Your task to perform on an android device: Is it going to rain tomorrow? Image 0: 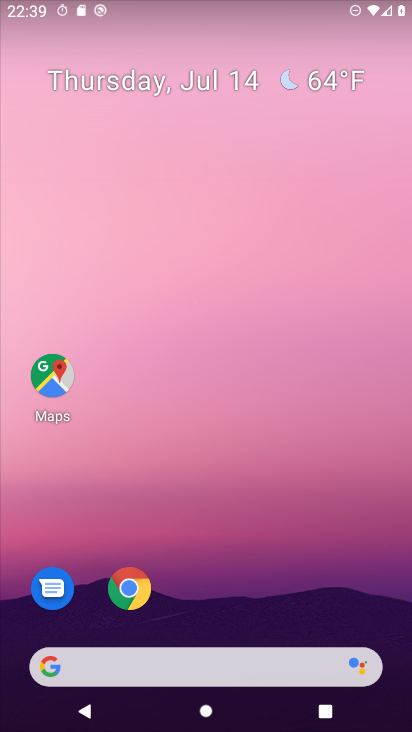
Step 0: drag from (325, 584) to (347, 428)
Your task to perform on an android device: Is it going to rain tomorrow? Image 1: 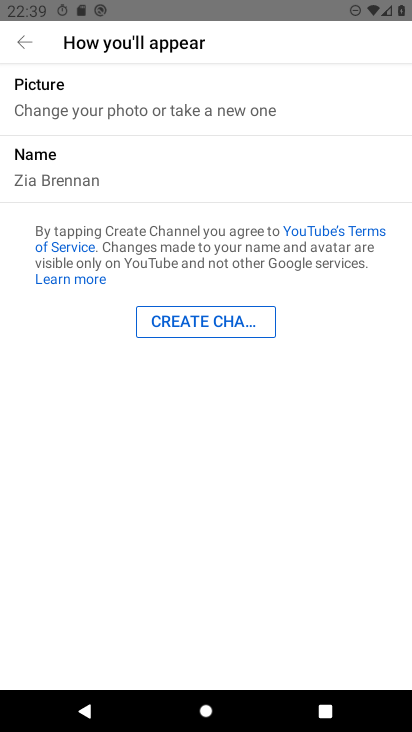
Step 1: press home button
Your task to perform on an android device: Is it going to rain tomorrow? Image 2: 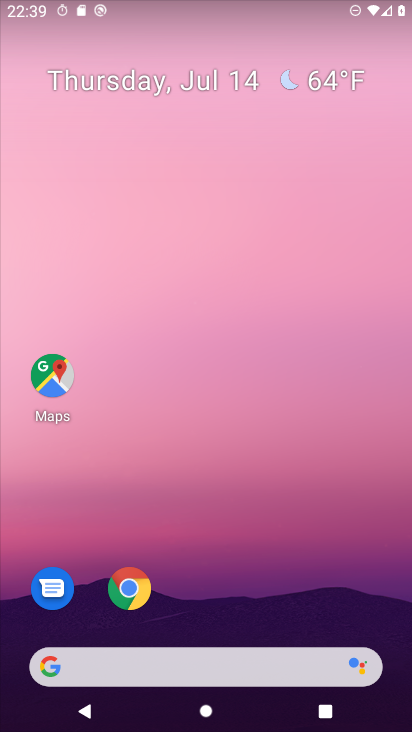
Step 2: click (274, 663)
Your task to perform on an android device: Is it going to rain tomorrow? Image 3: 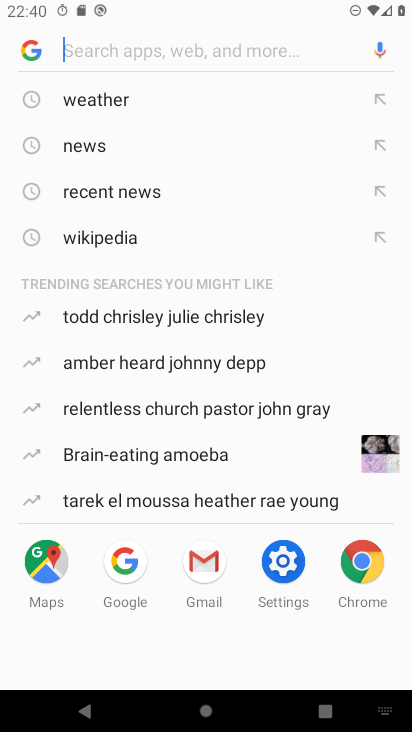
Step 3: click (95, 95)
Your task to perform on an android device: Is it going to rain tomorrow? Image 4: 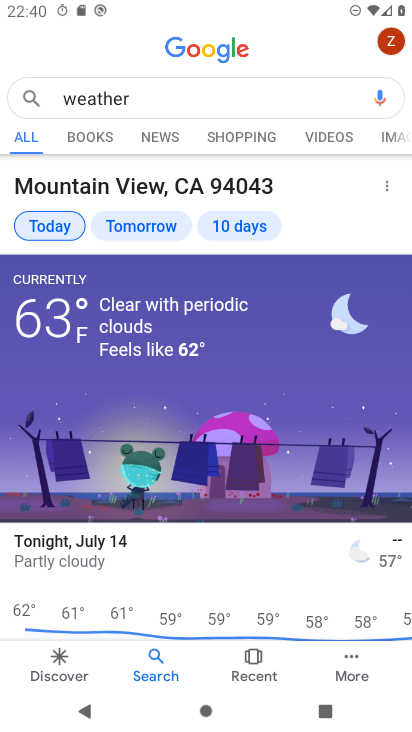
Step 4: click (155, 226)
Your task to perform on an android device: Is it going to rain tomorrow? Image 5: 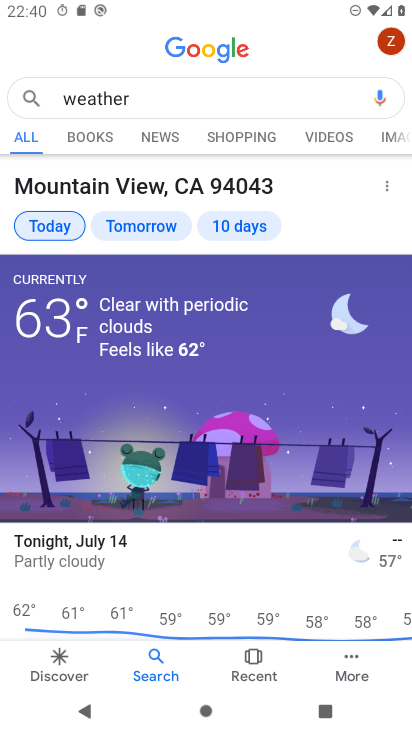
Step 5: click (155, 226)
Your task to perform on an android device: Is it going to rain tomorrow? Image 6: 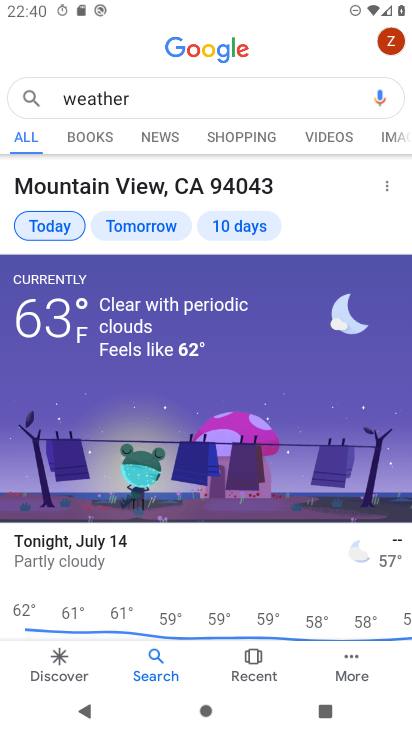
Step 6: click (155, 226)
Your task to perform on an android device: Is it going to rain tomorrow? Image 7: 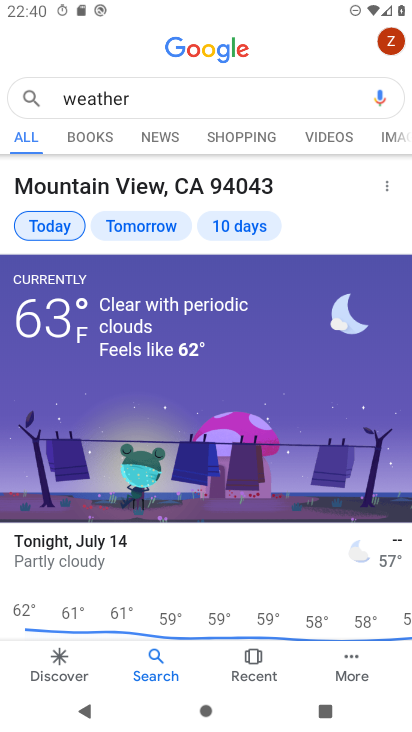
Step 7: click (155, 226)
Your task to perform on an android device: Is it going to rain tomorrow? Image 8: 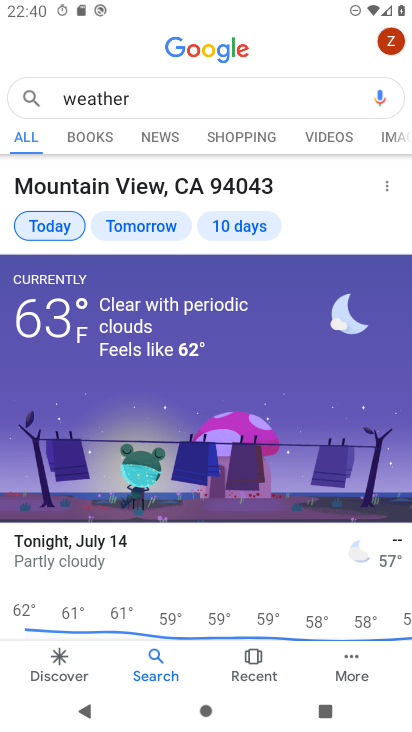
Step 8: click (155, 226)
Your task to perform on an android device: Is it going to rain tomorrow? Image 9: 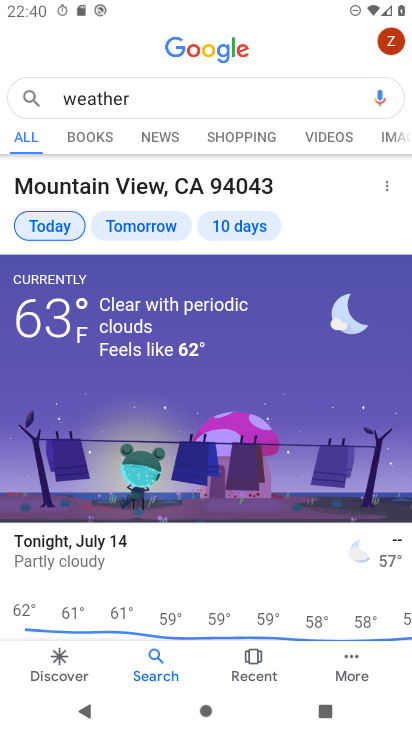
Step 9: click (155, 226)
Your task to perform on an android device: Is it going to rain tomorrow? Image 10: 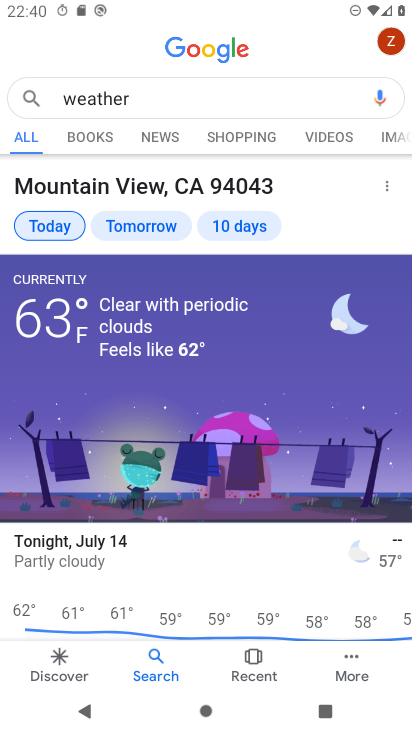
Step 10: click (155, 226)
Your task to perform on an android device: Is it going to rain tomorrow? Image 11: 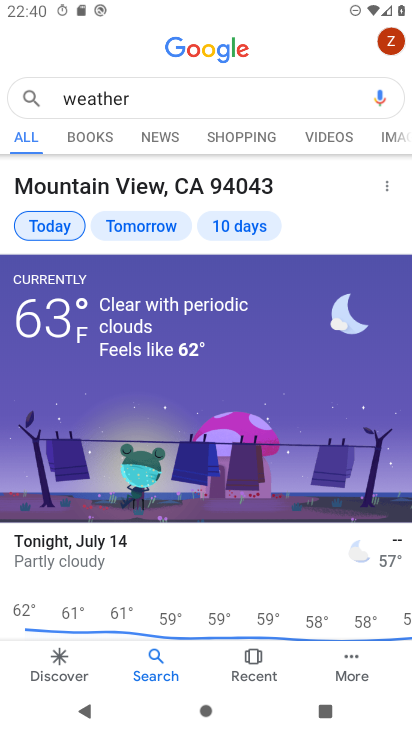
Step 11: click (155, 226)
Your task to perform on an android device: Is it going to rain tomorrow? Image 12: 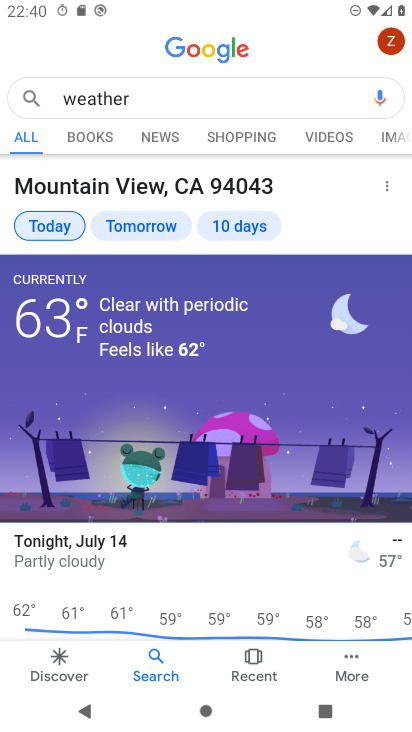
Step 12: click (155, 226)
Your task to perform on an android device: Is it going to rain tomorrow? Image 13: 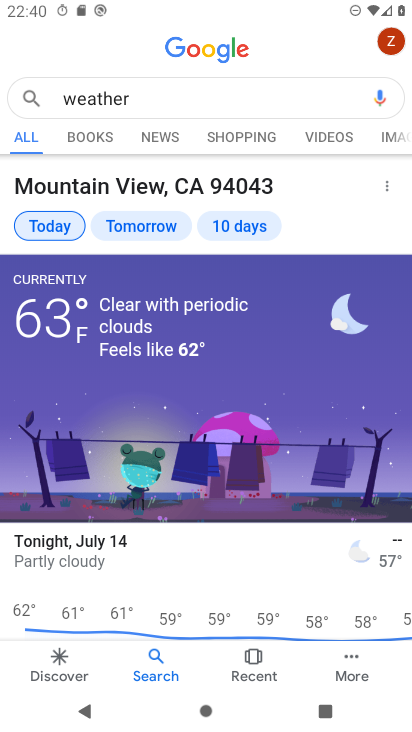
Step 13: click (155, 226)
Your task to perform on an android device: Is it going to rain tomorrow? Image 14: 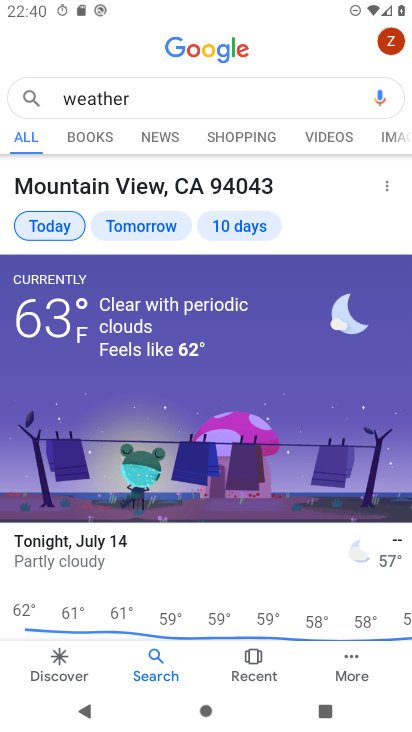
Step 14: click (155, 226)
Your task to perform on an android device: Is it going to rain tomorrow? Image 15: 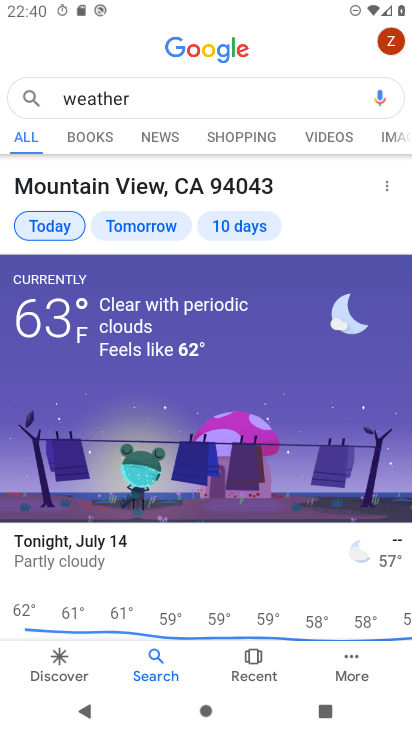
Step 15: click (155, 226)
Your task to perform on an android device: Is it going to rain tomorrow? Image 16: 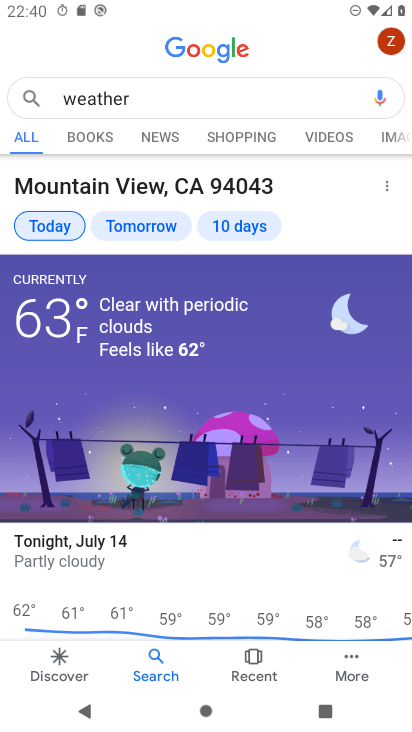
Step 16: task complete